Your task to perform on an android device: Go to calendar. Show me events next week Image 0: 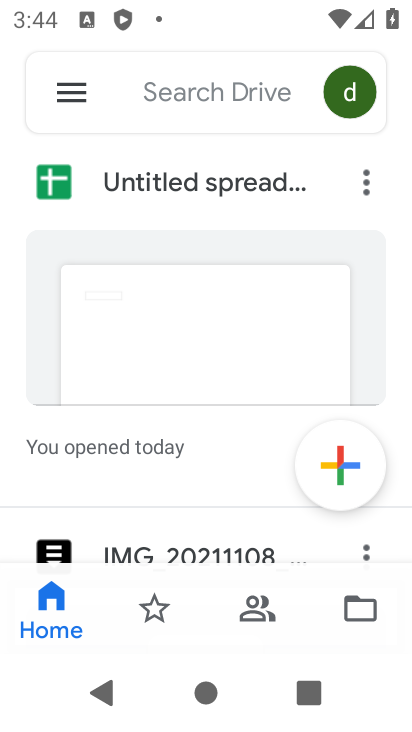
Step 0: task complete